Your task to perform on an android device: allow notifications from all sites in the chrome app Image 0: 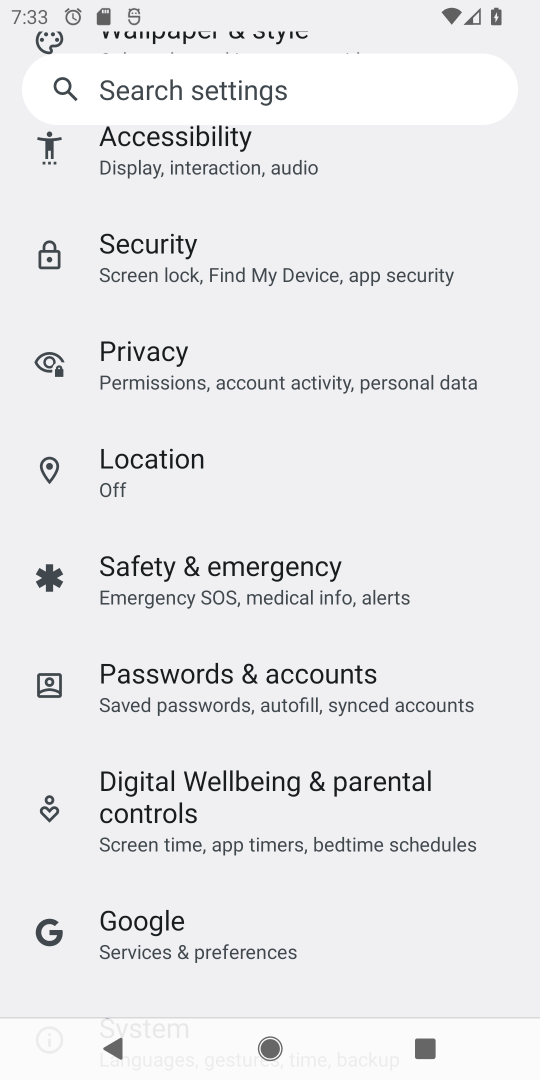
Step 0: drag from (278, 289) to (268, 760)
Your task to perform on an android device: allow notifications from all sites in the chrome app Image 1: 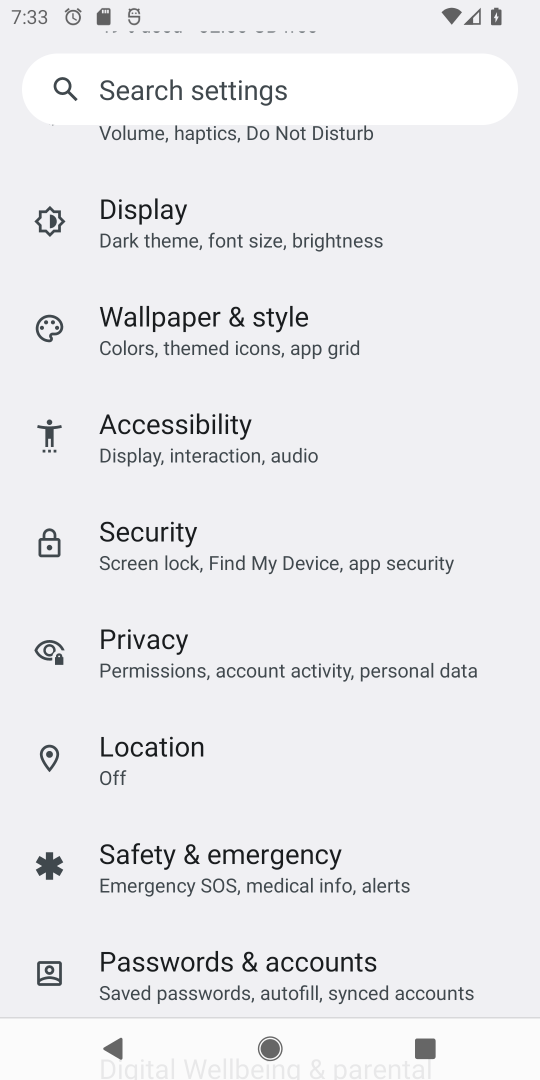
Step 1: drag from (264, 395) to (277, 821)
Your task to perform on an android device: allow notifications from all sites in the chrome app Image 2: 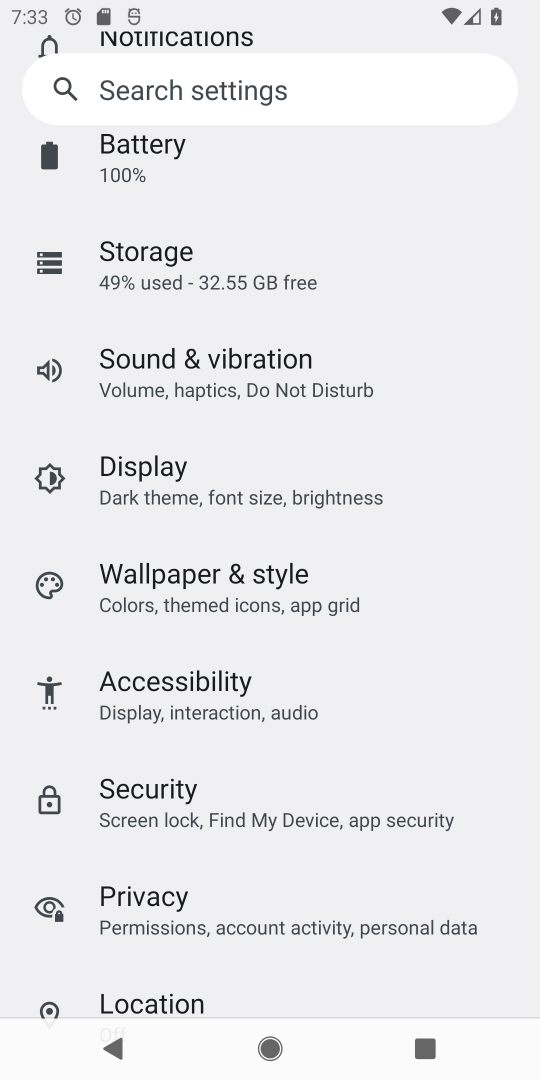
Step 2: press home button
Your task to perform on an android device: allow notifications from all sites in the chrome app Image 3: 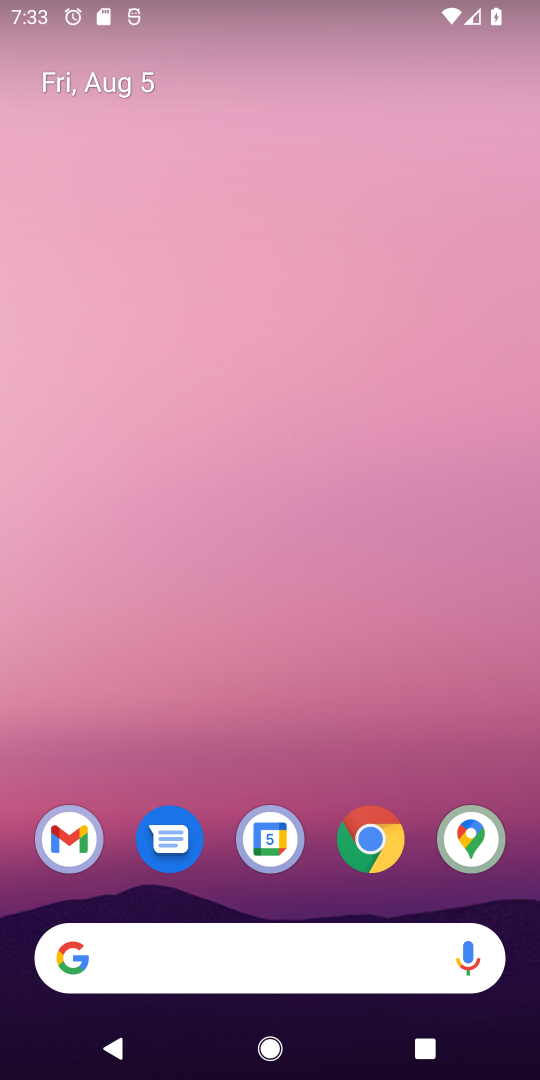
Step 3: click (365, 824)
Your task to perform on an android device: allow notifications from all sites in the chrome app Image 4: 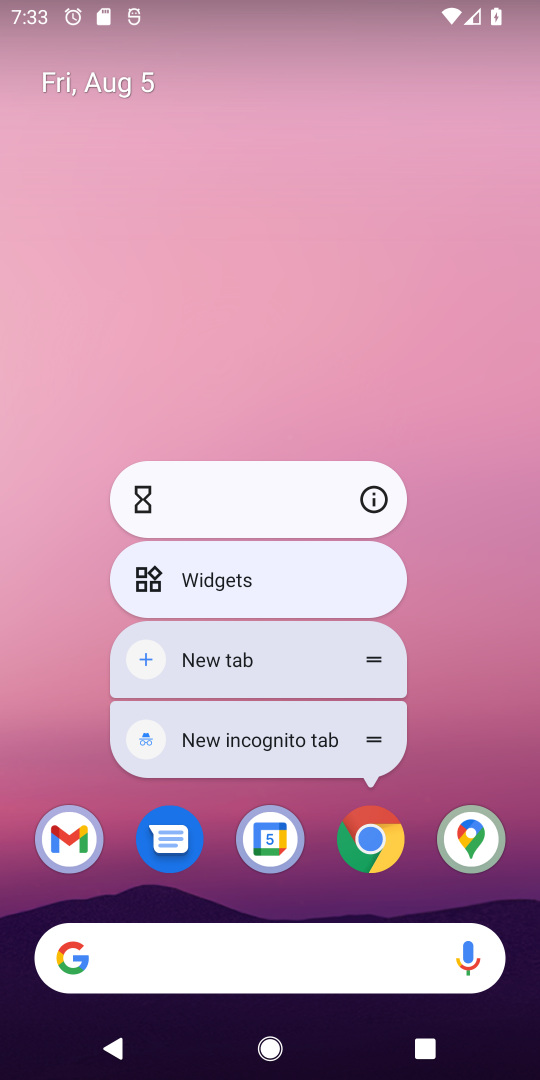
Step 4: click (395, 848)
Your task to perform on an android device: allow notifications from all sites in the chrome app Image 5: 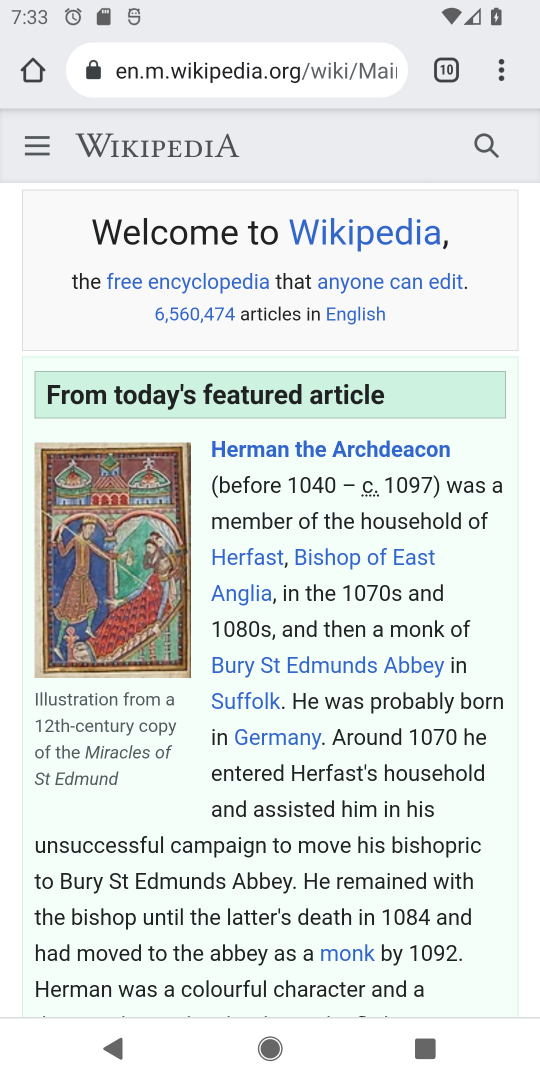
Step 5: click (495, 65)
Your task to perform on an android device: allow notifications from all sites in the chrome app Image 6: 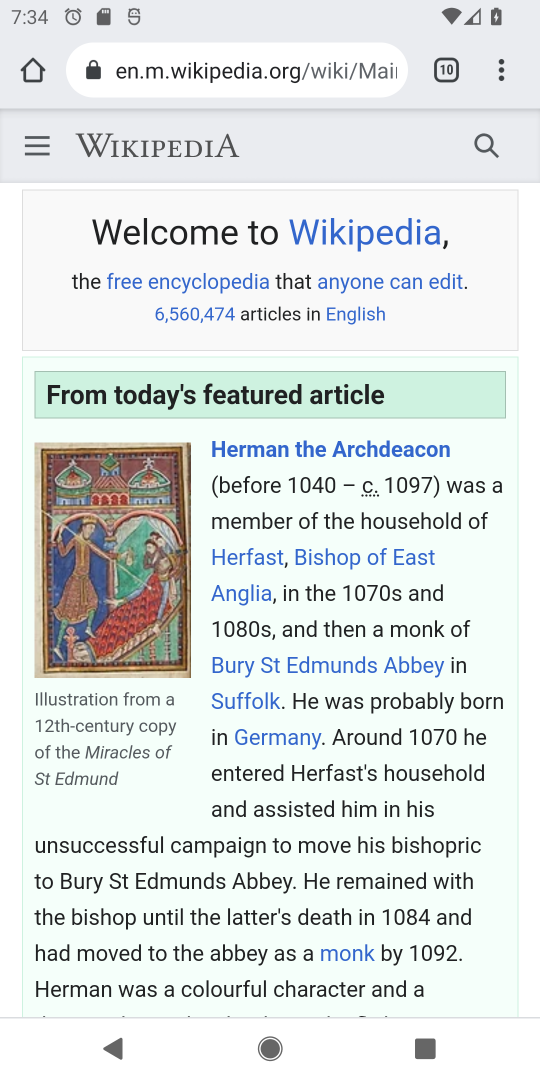
Step 6: click (506, 70)
Your task to perform on an android device: allow notifications from all sites in the chrome app Image 7: 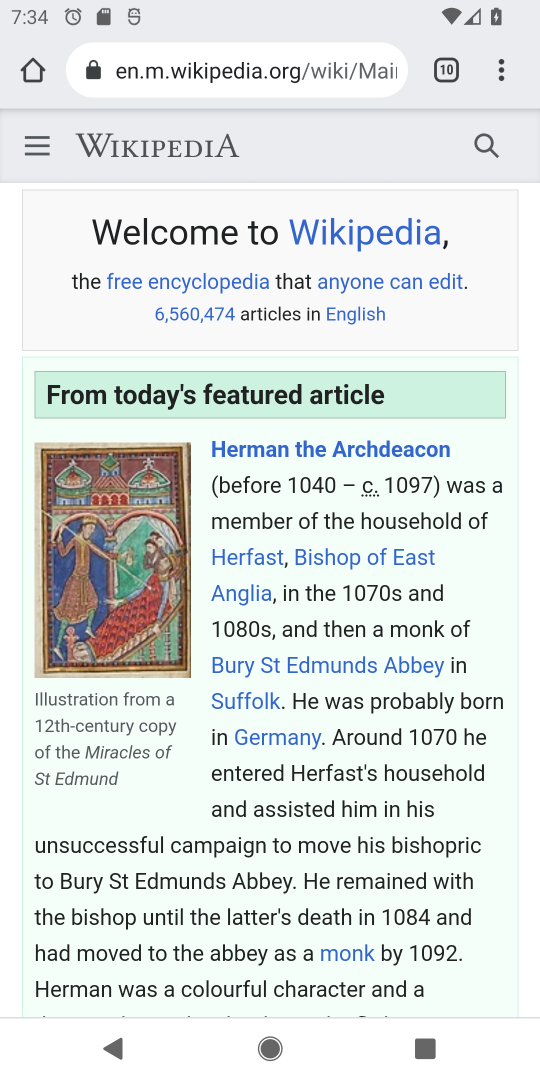
Step 7: drag from (497, 78) to (311, 828)
Your task to perform on an android device: allow notifications from all sites in the chrome app Image 8: 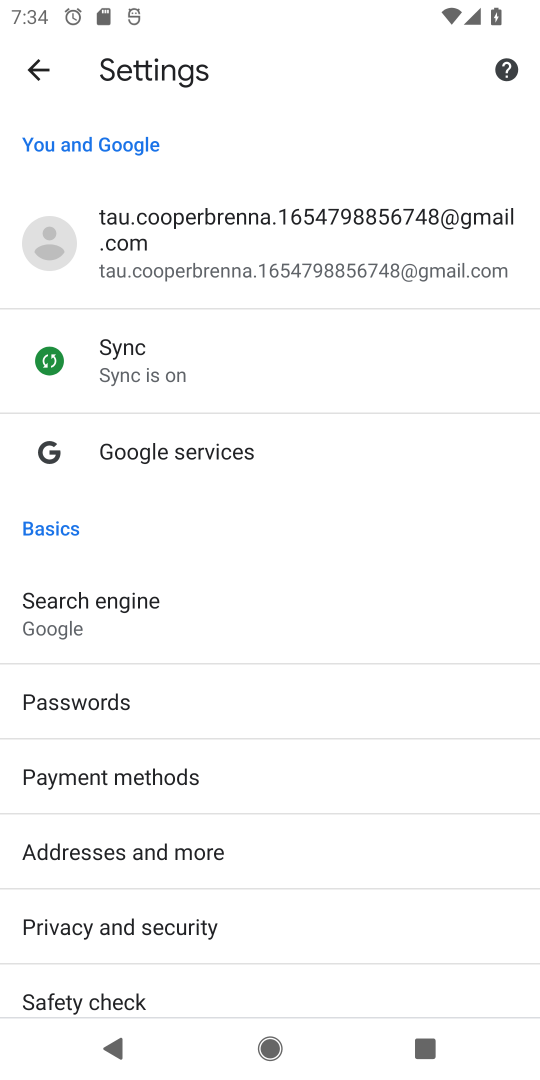
Step 8: drag from (318, 909) to (285, 470)
Your task to perform on an android device: allow notifications from all sites in the chrome app Image 9: 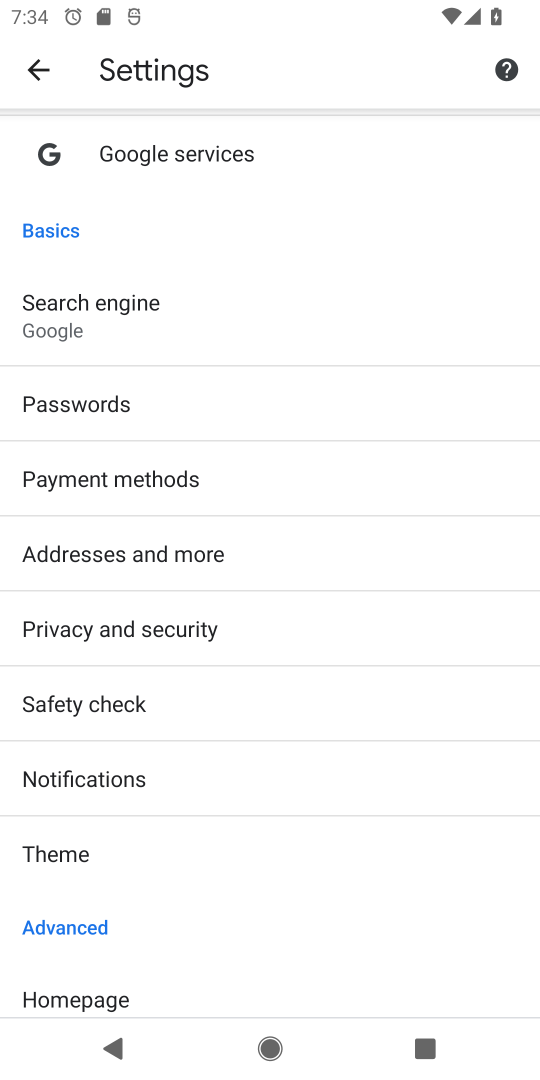
Step 9: drag from (215, 824) to (232, 330)
Your task to perform on an android device: allow notifications from all sites in the chrome app Image 10: 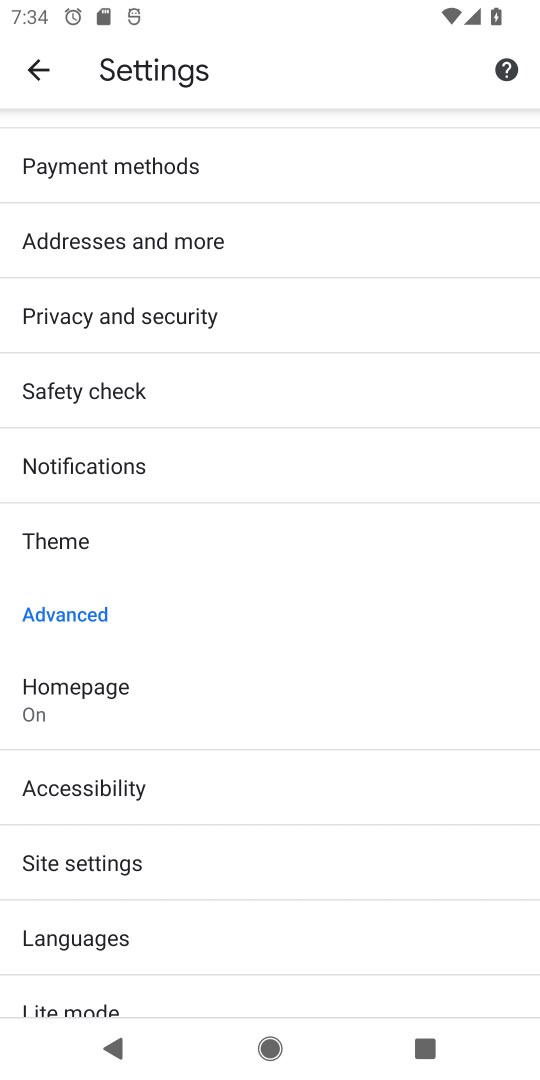
Step 10: click (114, 841)
Your task to perform on an android device: allow notifications from all sites in the chrome app Image 11: 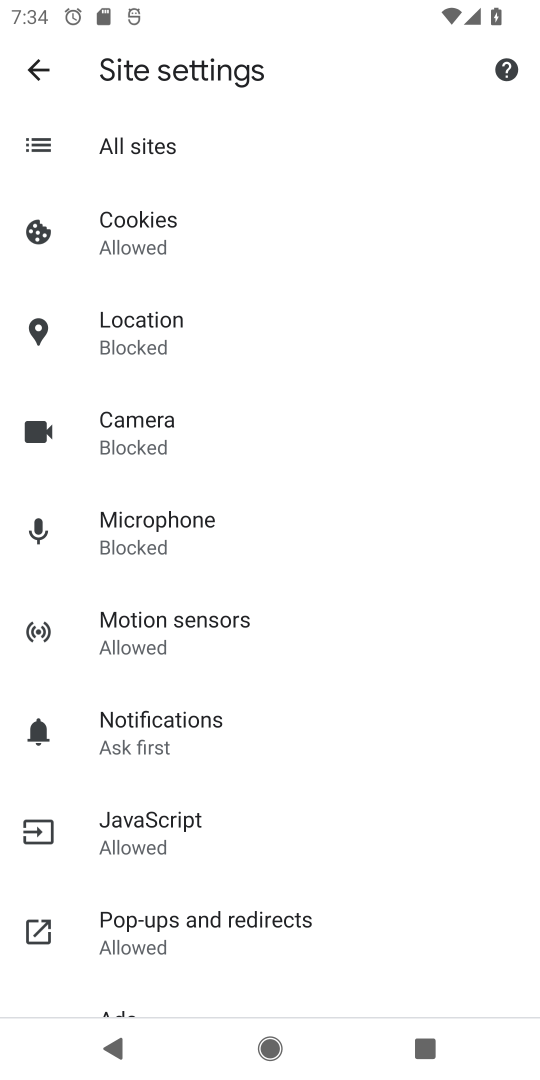
Step 11: click (164, 139)
Your task to perform on an android device: allow notifications from all sites in the chrome app Image 12: 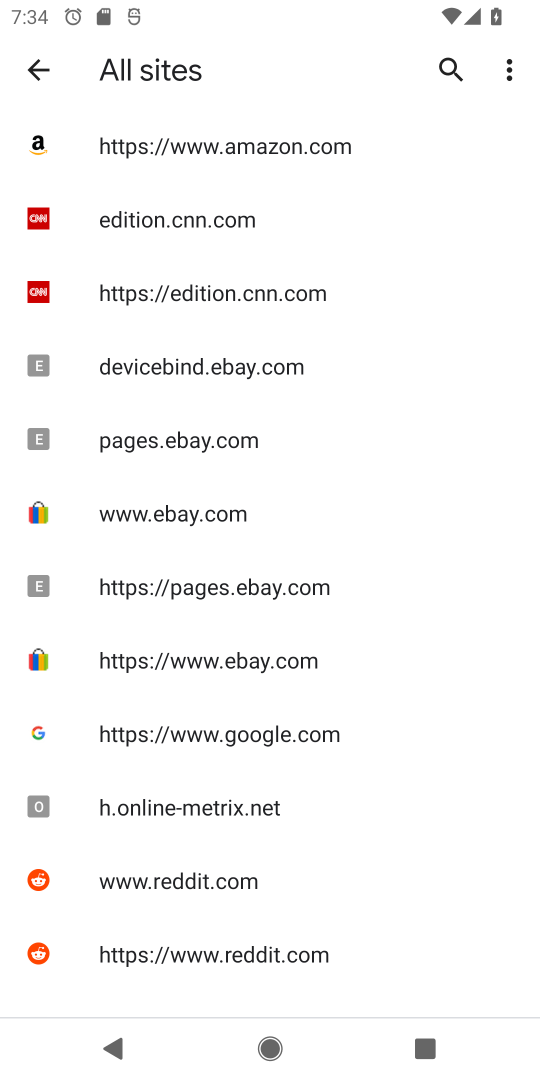
Step 12: click (295, 738)
Your task to perform on an android device: allow notifications from all sites in the chrome app Image 13: 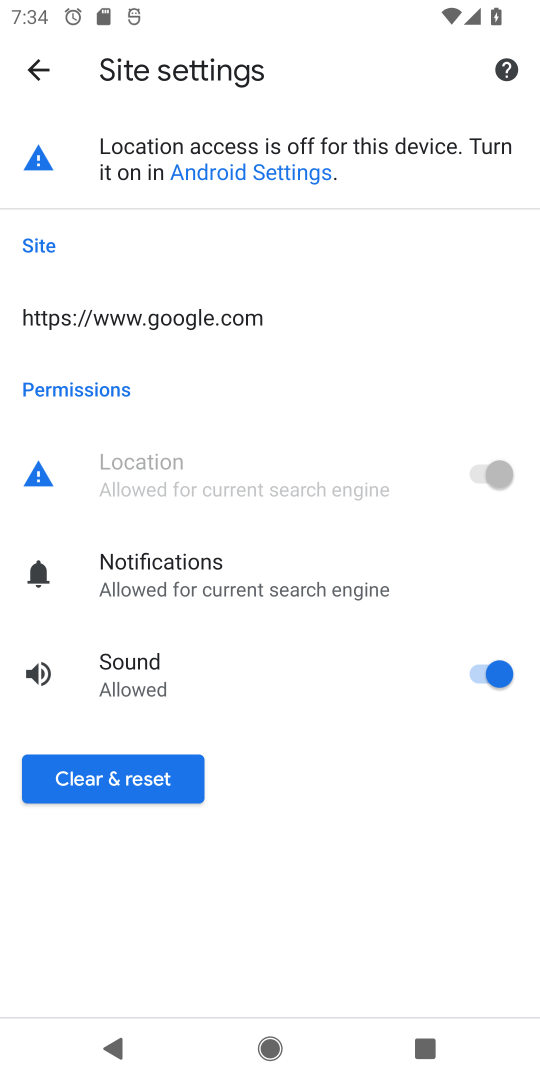
Step 13: click (461, 614)
Your task to perform on an android device: allow notifications from all sites in the chrome app Image 14: 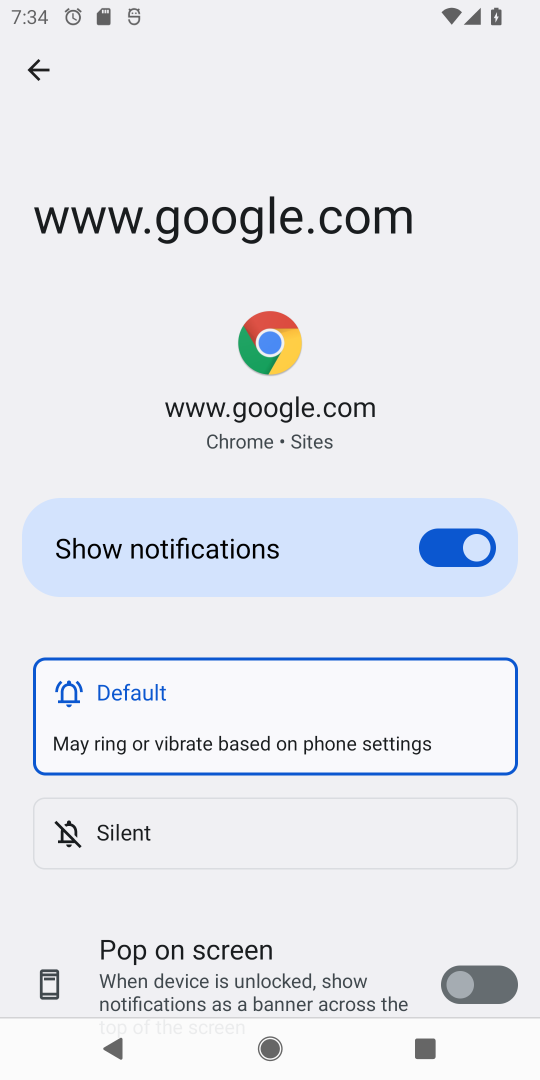
Step 14: task complete